Your task to perform on an android device: snooze an email in the gmail app Image 0: 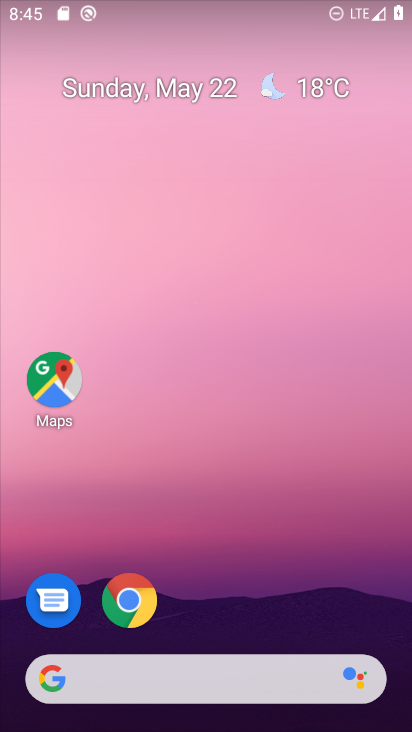
Step 0: drag from (375, 629) to (324, 48)
Your task to perform on an android device: snooze an email in the gmail app Image 1: 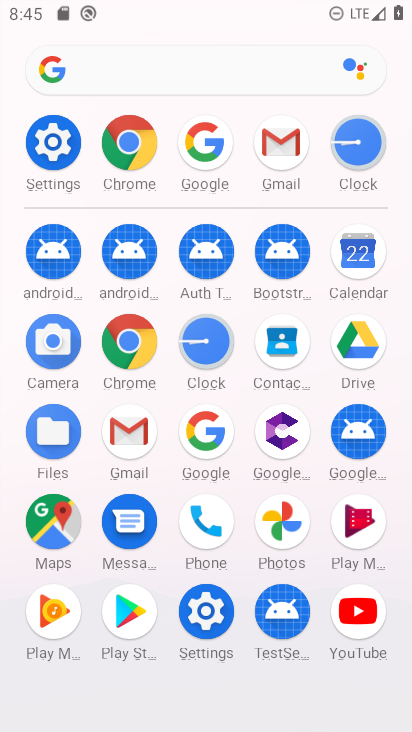
Step 1: click (120, 448)
Your task to perform on an android device: snooze an email in the gmail app Image 2: 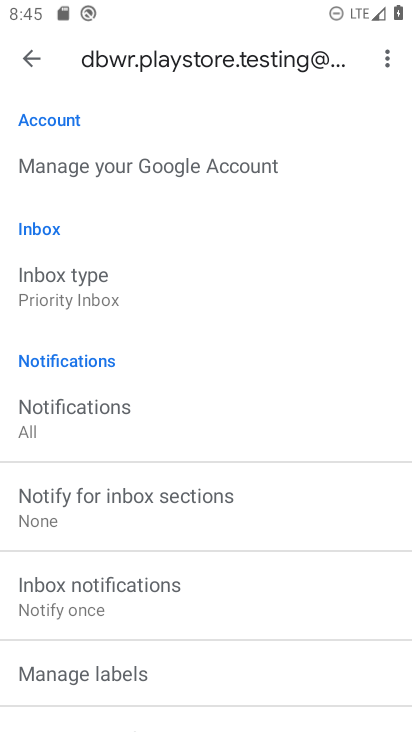
Step 2: task complete